Your task to perform on an android device: Empty the shopping cart on ebay. Add "jbl flip 4" to the cart on ebay Image 0: 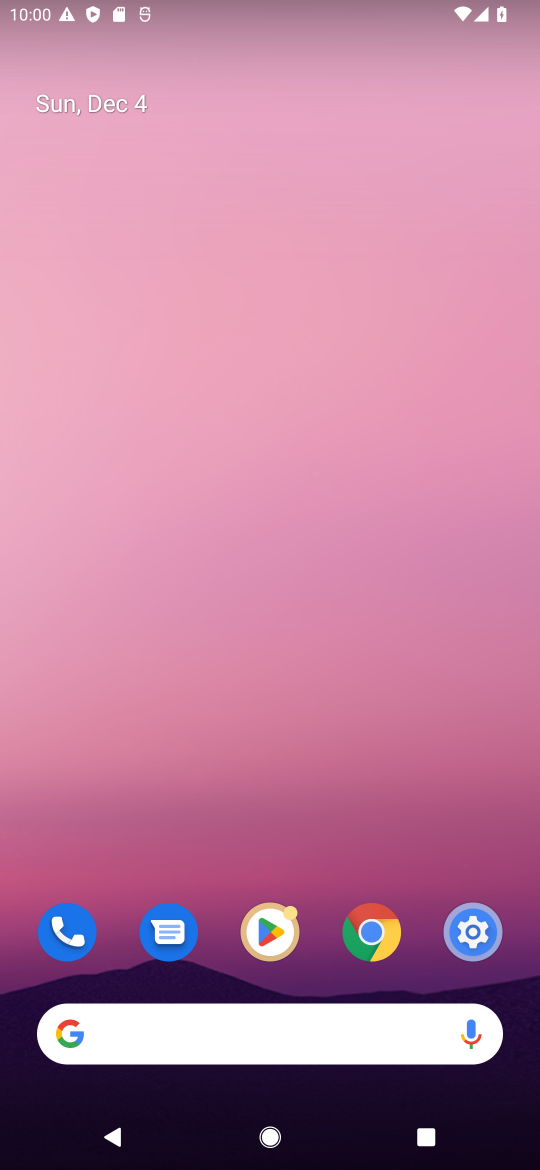
Step 0: click (380, 927)
Your task to perform on an android device: Empty the shopping cart on ebay. Add "jbl flip 4" to the cart on ebay Image 1: 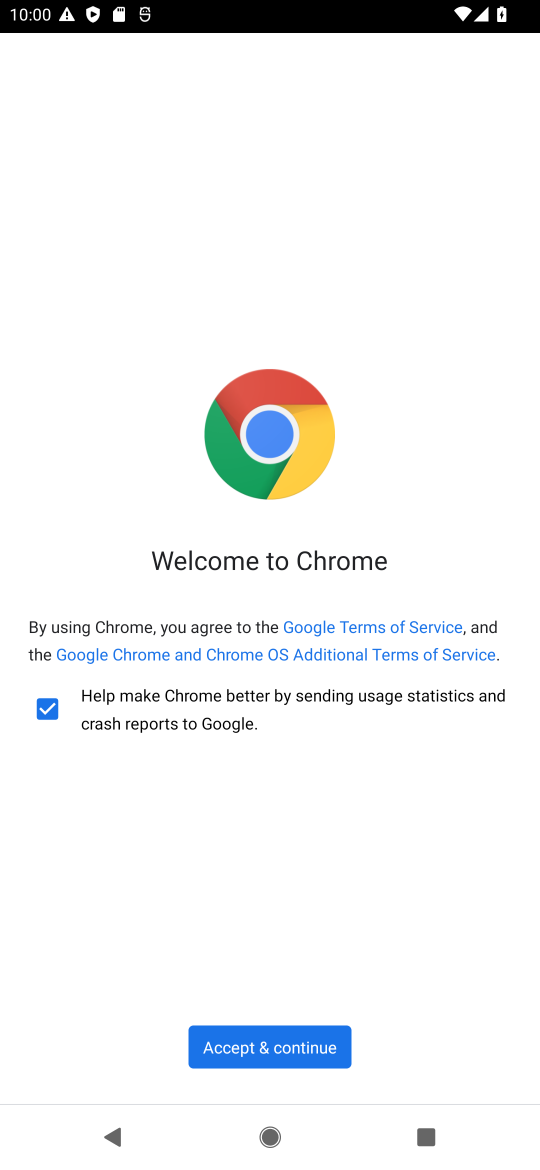
Step 1: click (284, 1046)
Your task to perform on an android device: Empty the shopping cart on ebay. Add "jbl flip 4" to the cart on ebay Image 2: 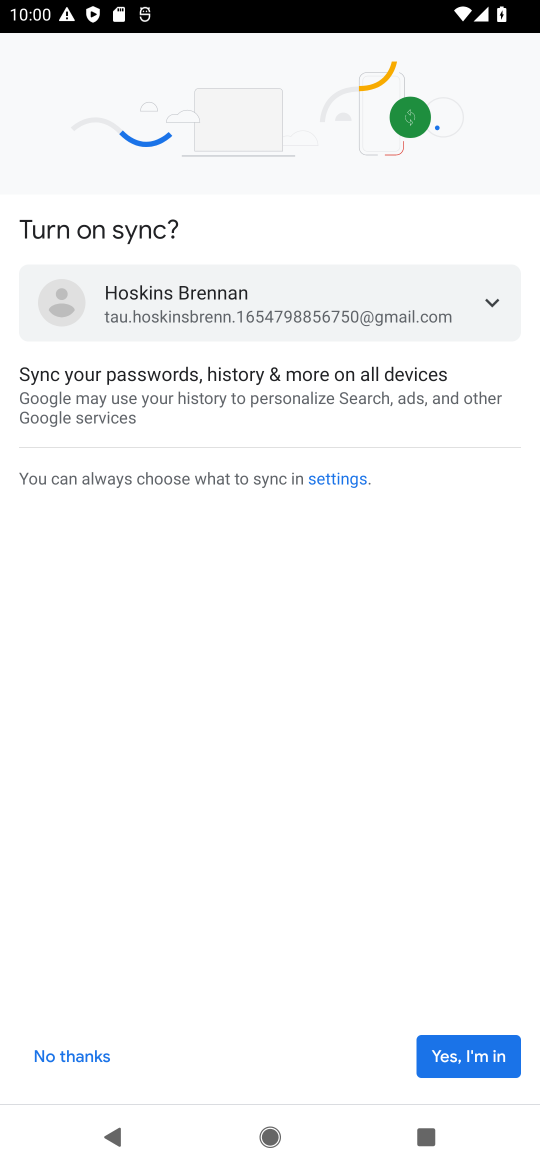
Step 2: click (466, 1059)
Your task to perform on an android device: Empty the shopping cart on ebay. Add "jbl flip 4" to the cart on ebay Image 3: 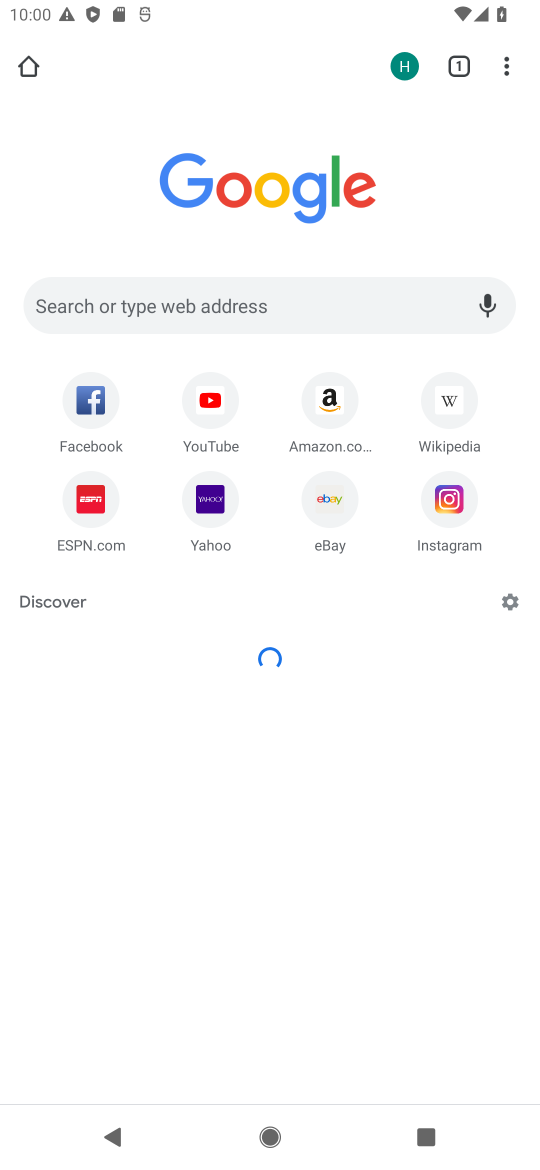
Step 3: click (328, 495)
Your task to perform on an android device: Empty the shopping cart on ebay. Add "jbl flip 4" to the cart on ebay Image 4: 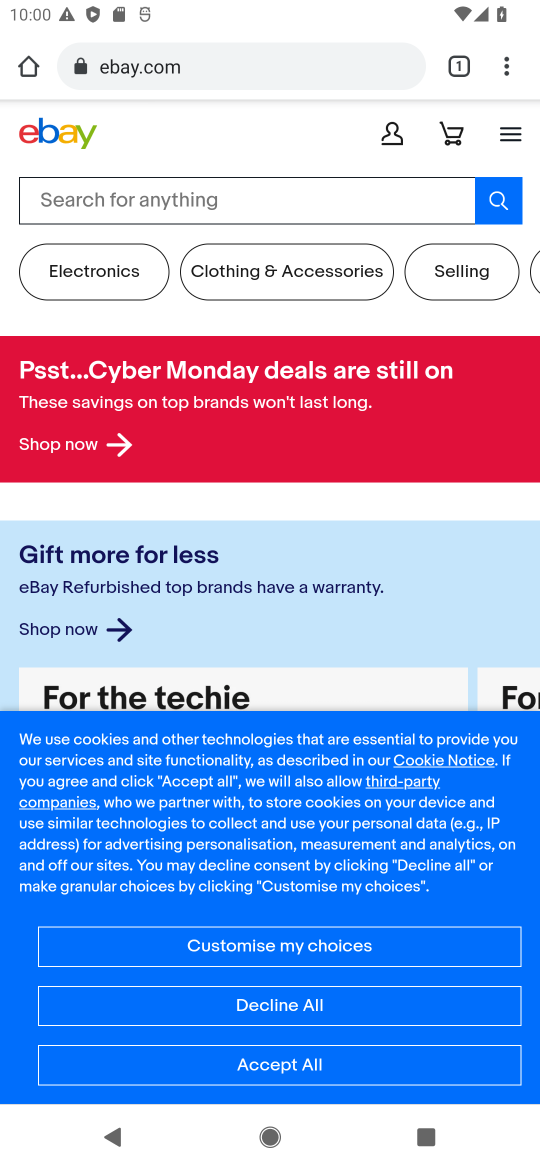
Step 4: click (268, 1067)
Your task to perform on an android device: Empty the shopping cart on ebay. Add "jbl flip 4" to the cart on ebay Image 5: 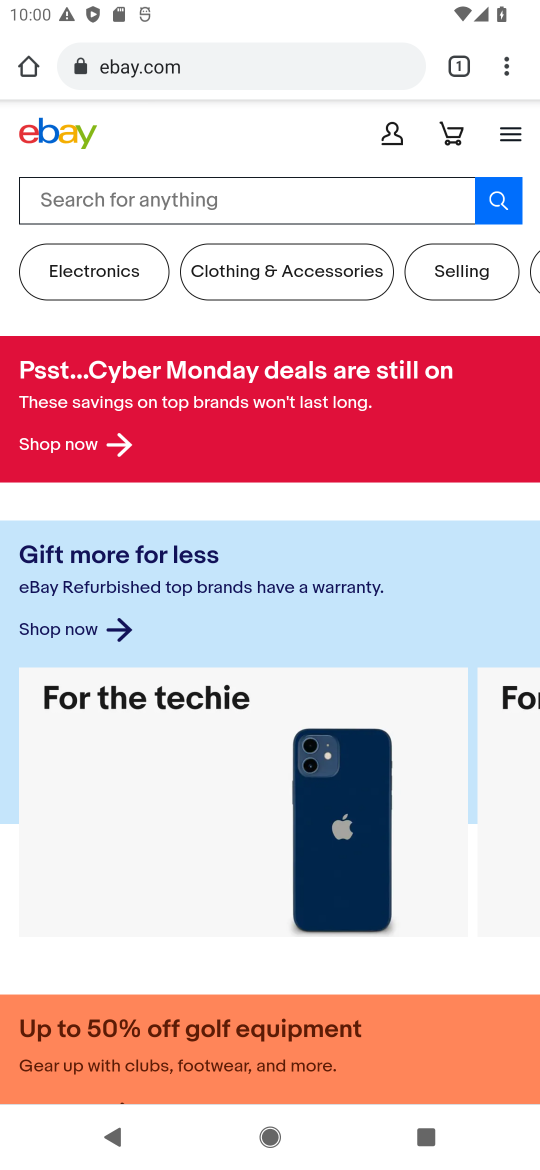
Step 5: click (370, 190)
Your task to perform on an android device: Empty the shopping cart on ebay. Add "jbl flip 4" to the cart on ebay Image 6: 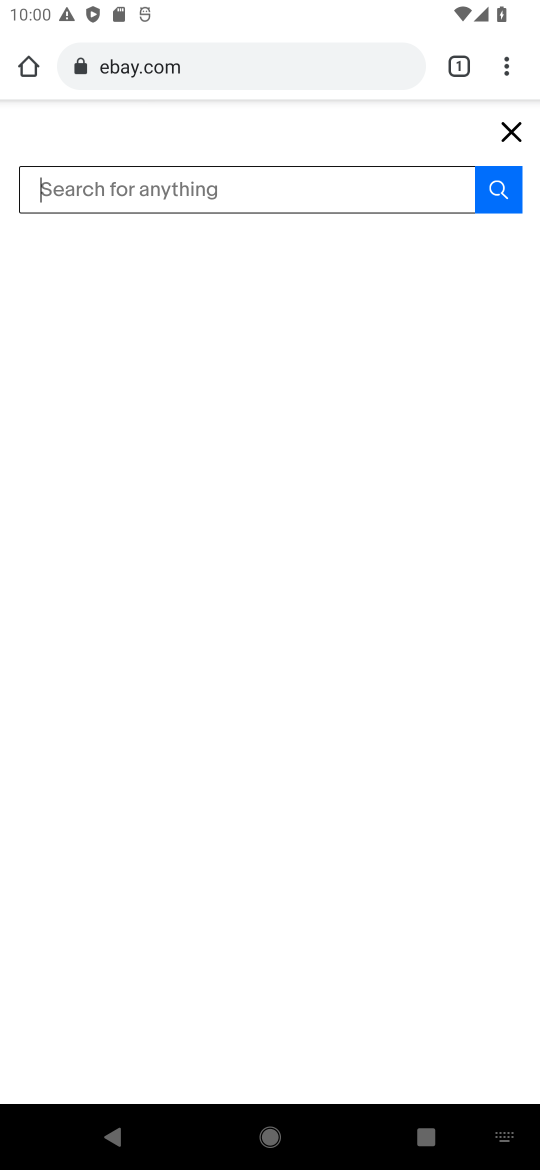
Step 6: type "jbl flip 4"
Your task to perform on an android device: Empty the shopping cart on ebay. Add "jbl flip 4" to the cart on ebay Image 7: 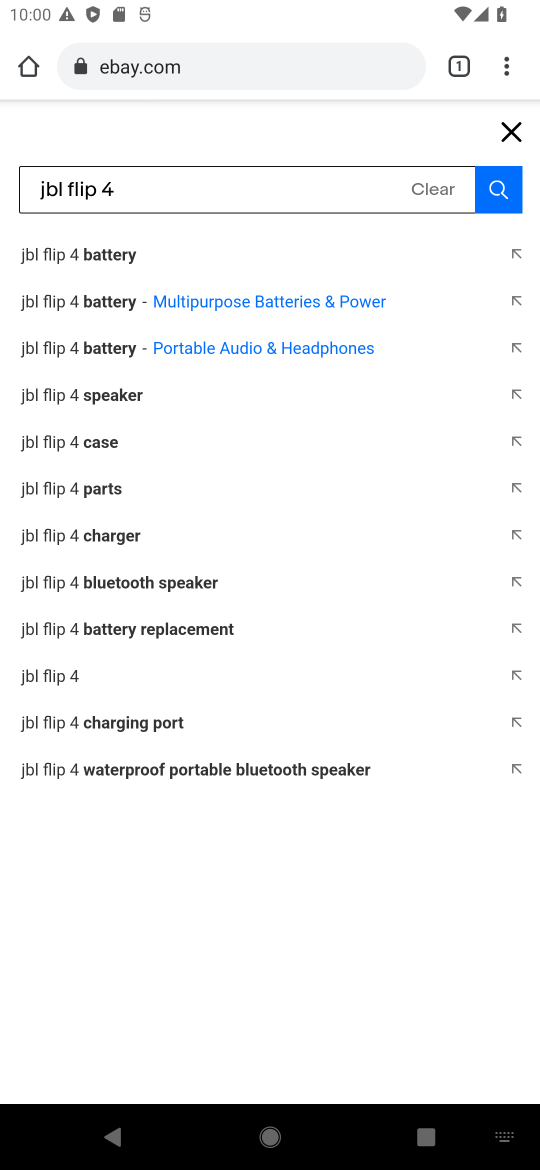
Step 7: click (82, 248)
Your task to perform on an android device: Empty the shopping cart on ebay. Add "jbl flip 4" to the cart on ebay Image 8: 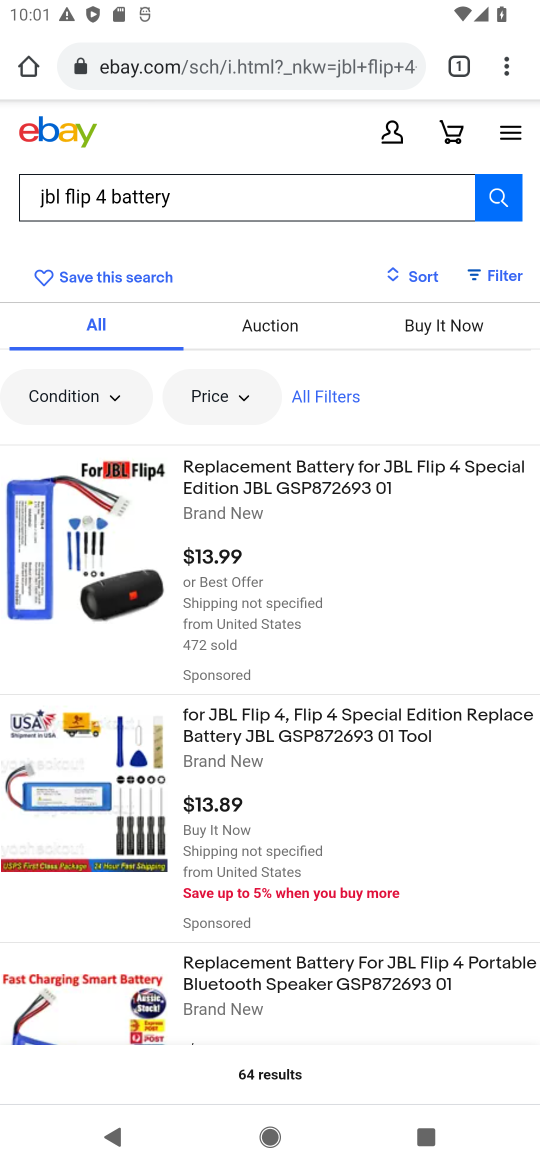
Step 8: click (84, 559)
Your task to perform on an android device: Empty the shopping cart on ebay. Add "jbl flip 4" to the cart on ebay Image 9: 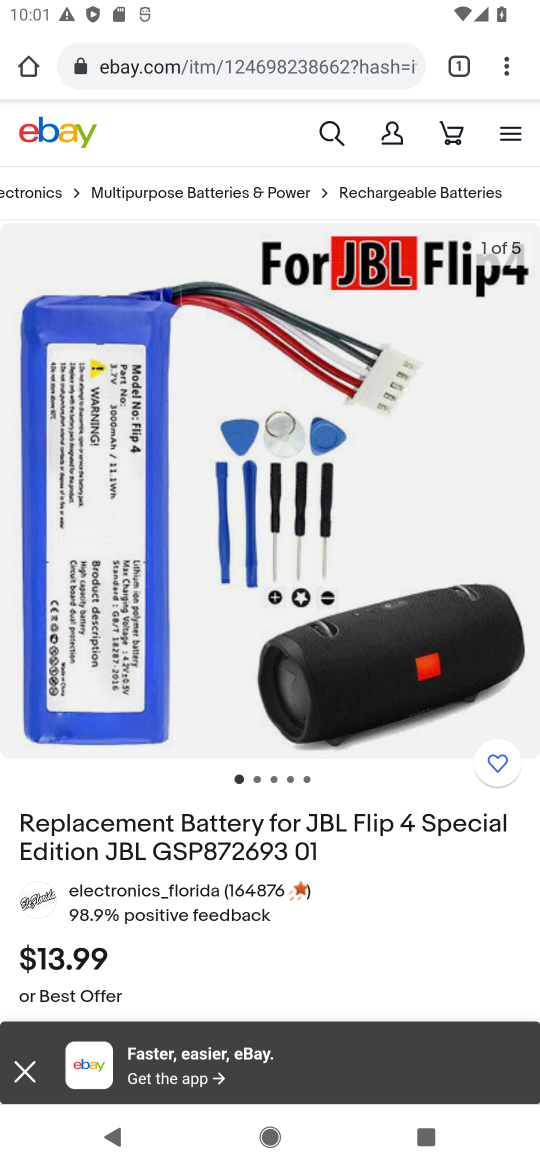
Step 9: drag from (456, 915) to (435, 305)
Your task to perform on an android device: Empty the shopping cart on ebay. Add "jbl flip 4" to the cart on ebay Image 10: 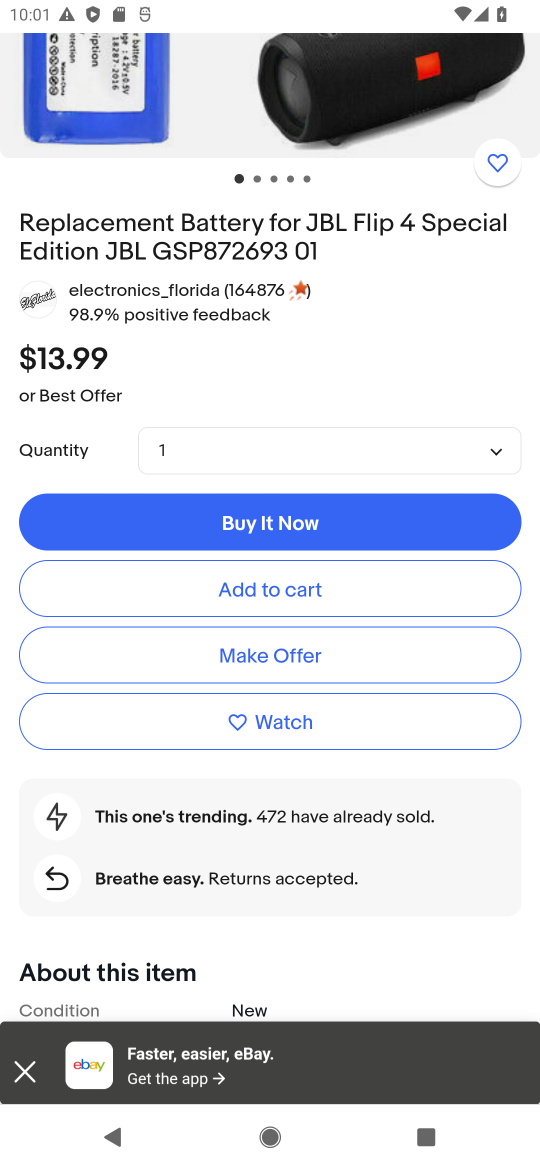
Step 10: click (278, 587)
Your task to perform on an android device: Empty the shopping cart on ebay. Add "jbl flip 4" to the cart on ebay Image 11: 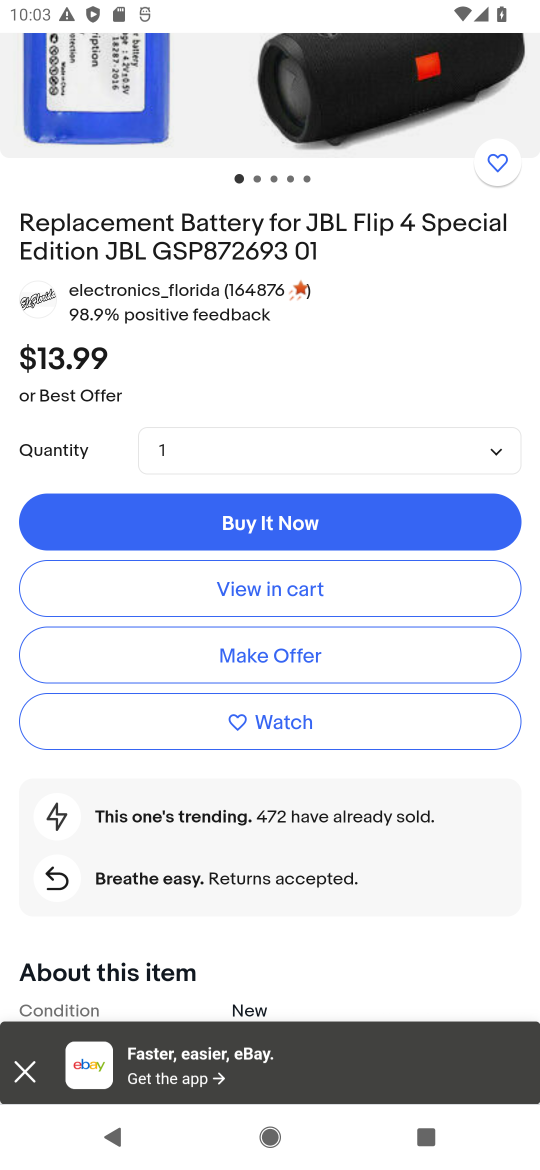
Step 11: task complete